Your task to perform on an android device: change text size in settings app Image 0: 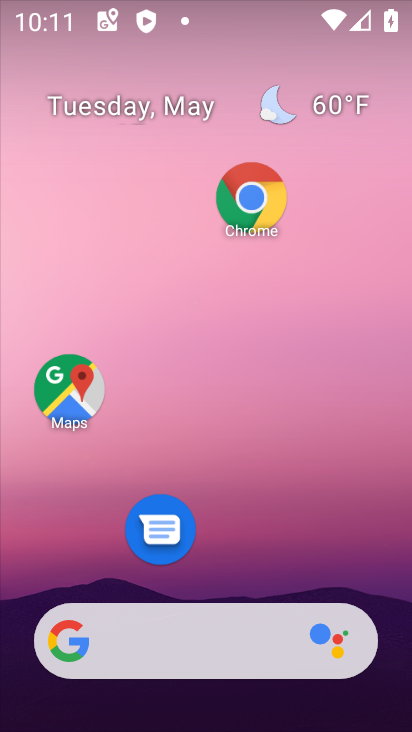
Step 0: drag from (188, 360) to (161, 163)
Your task to perform on an android device: change text size in settings app Image 1: 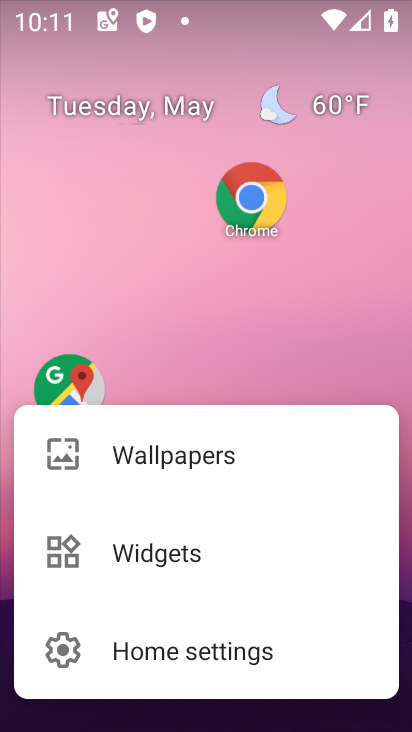
Step 1: click (280, 307)
Your task to perform on an android device: change text size in settings app Image 2: 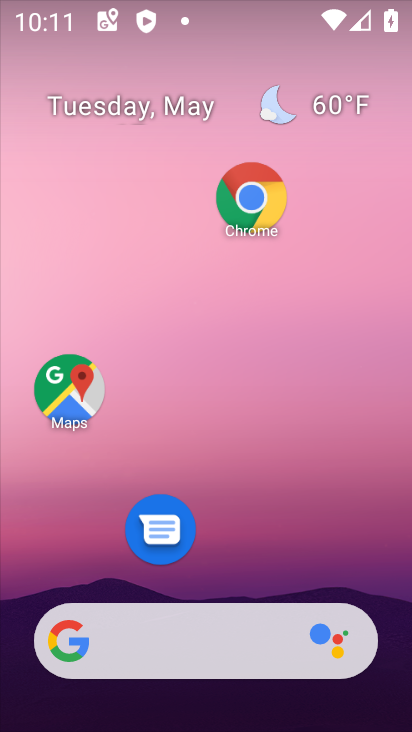
Step 2: drag from (198, 606) to (198, 183)
Your task to perform on an android device: change text size in settings app Image 3: 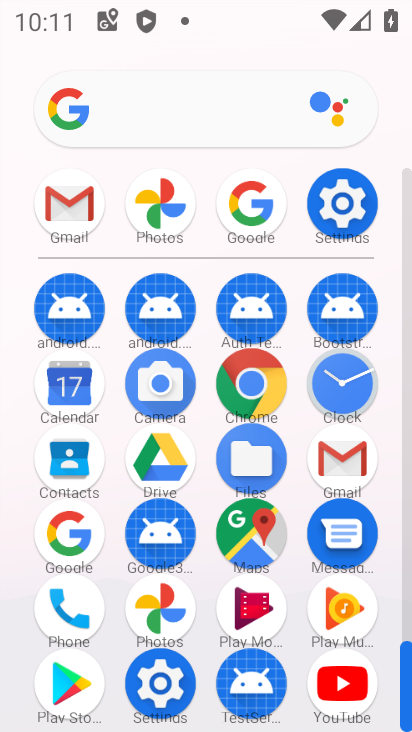
Step 3: click (337, 199)
Your task to perform on an android device: change text size in settings app Image 4: 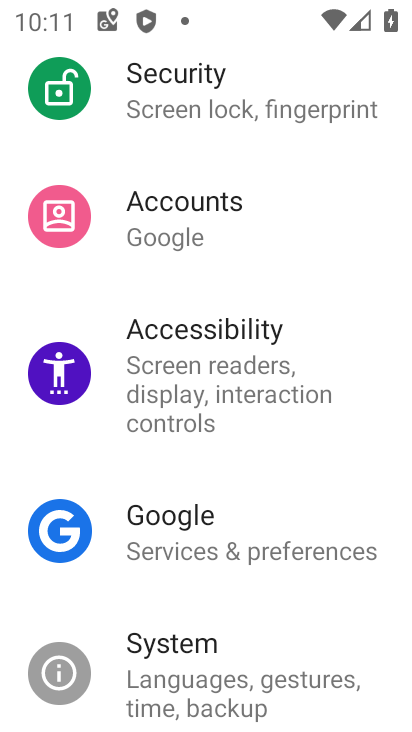
Step 4: click (173, 397)
Your task to perform on an android device: change text size in settings app Image 5: 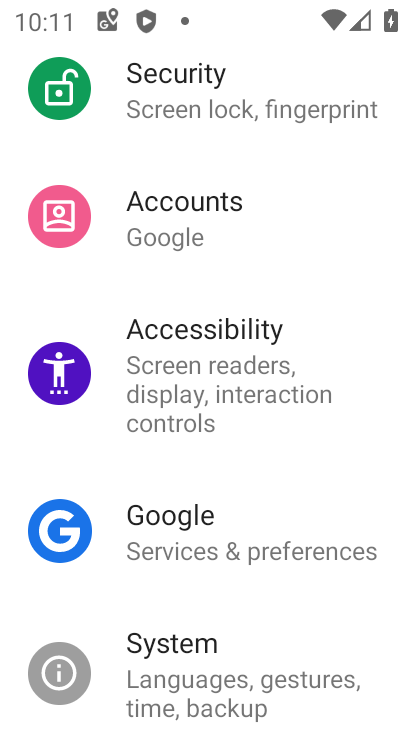
Step 5: click (180, 355)
Your task to perform on an android device: change text size in settings app Image 6: 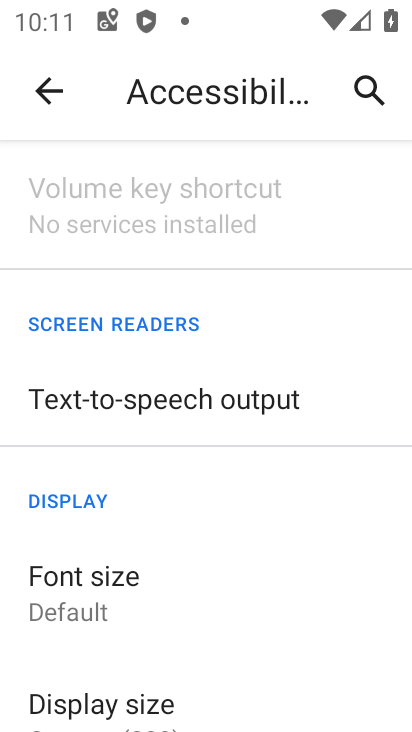
Step 6: click (99, 613)
Your task to perform on an android device: change text size in settings app Image 7: 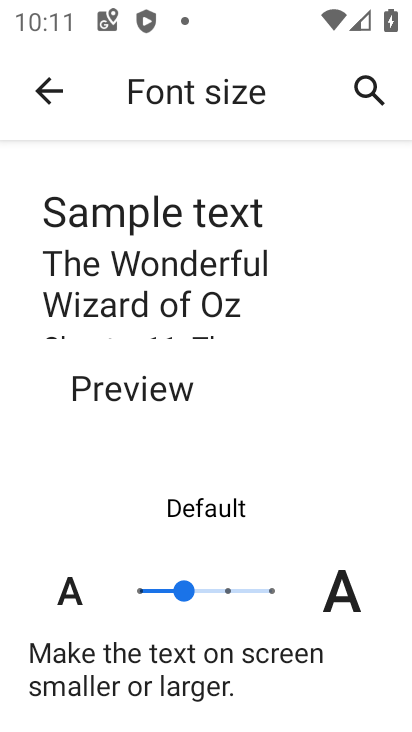
Step 7: click (224, 594)
Your task to perform on an android device: change text size in settings app Image 8: 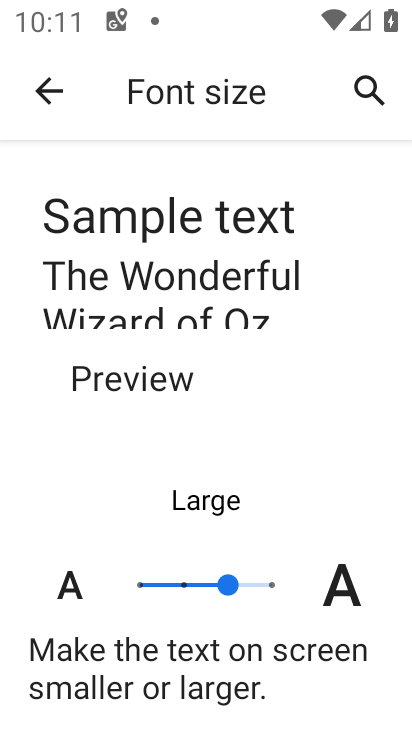
Step 8: task complete